Your task to perform on an android device: set an alarm Image 0: 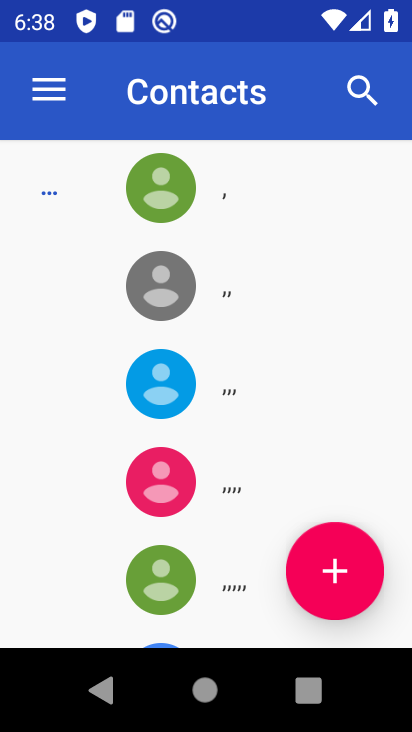
Step 0: press home button
Your task to perform on an android device: set an alarm Image 1: 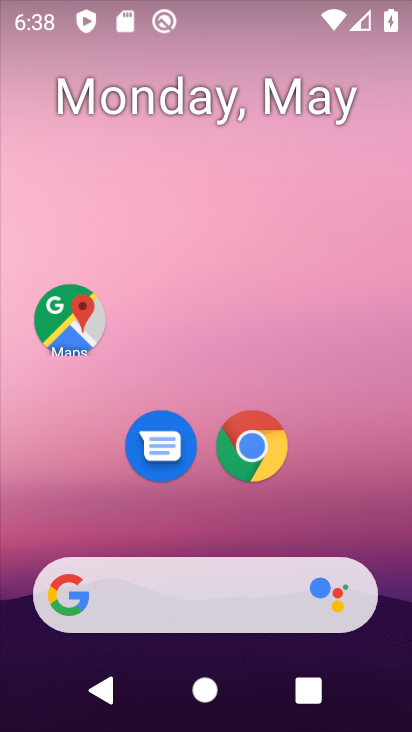
Step 1: drag from (351, 473) to (277, 90)
Your task to perform on an android device: set an alarm Image 2: 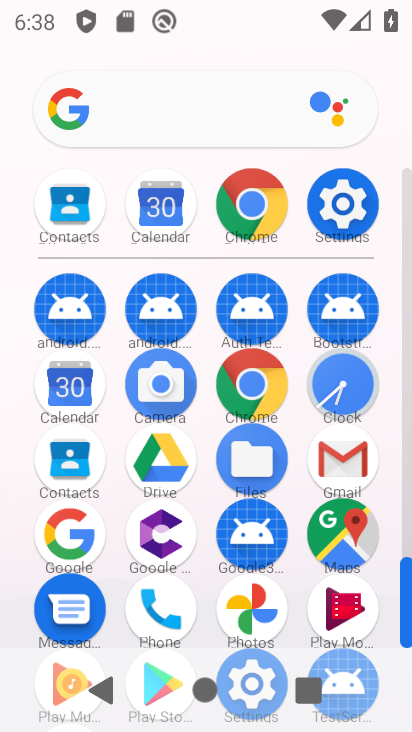
Step 2: click (332, 372)
Your task to perform on an android device: set an alarm Image 3: 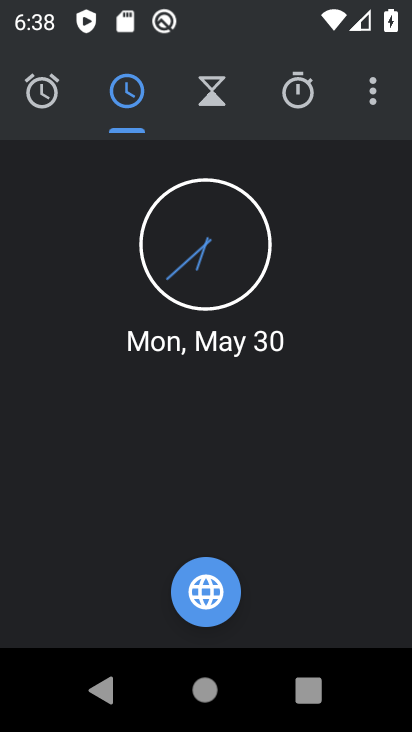
Step 3: click (35, 94)
Your task to perform on an android device: set an alarm Image 4: 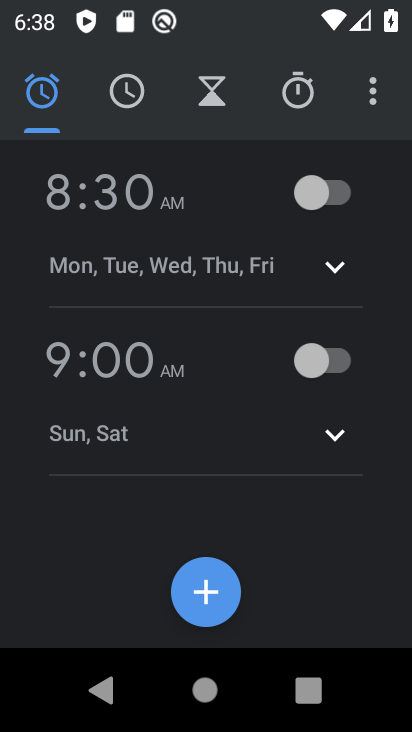
Step 4: click (198, 590)
Your task to perform on an android device: set an alarm Image 5: 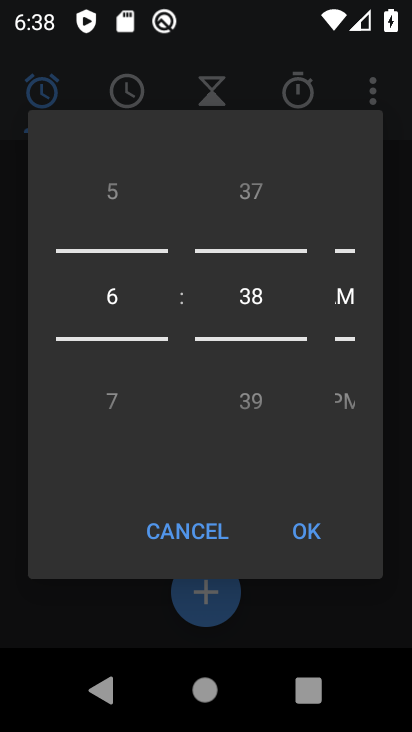
Step 5: click (303, 533)
Your task to perform on an android device: set an alarm Image 6: 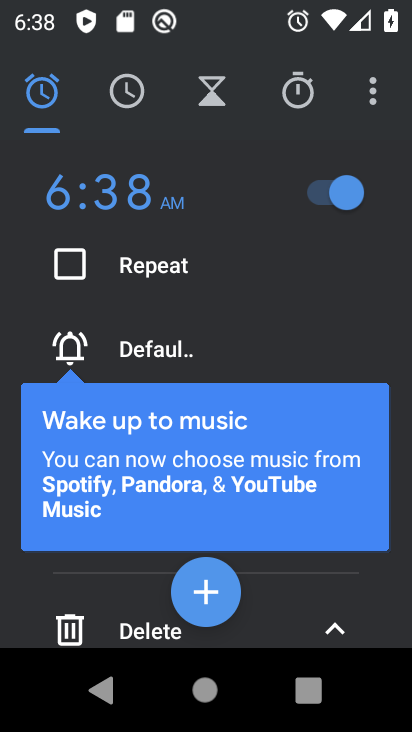
Step 6: task complete